Your task to perform on an android device: toggle translation in the chrome app Image 0: 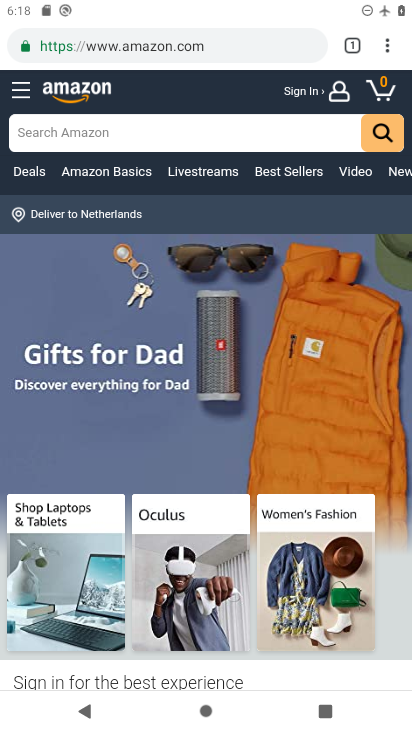
Step 0: press home button
Your task to perform on an android device: toggle translation in the chrome app Image 1: 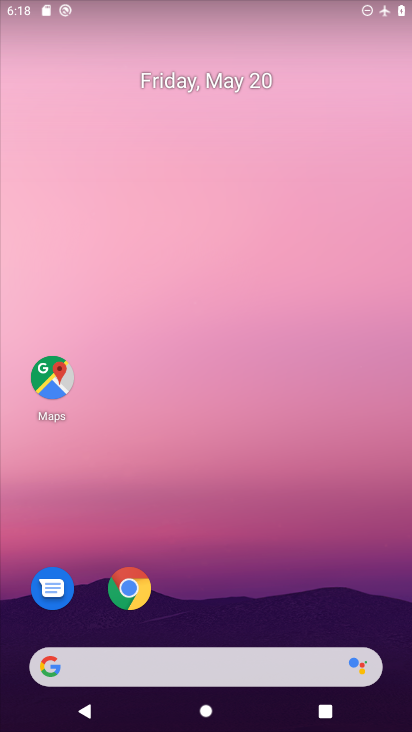
Step 1: drag from (226, 580) to (221, 171)
Your task to perform on an android device: toggle translation in the chrome app Image 2: 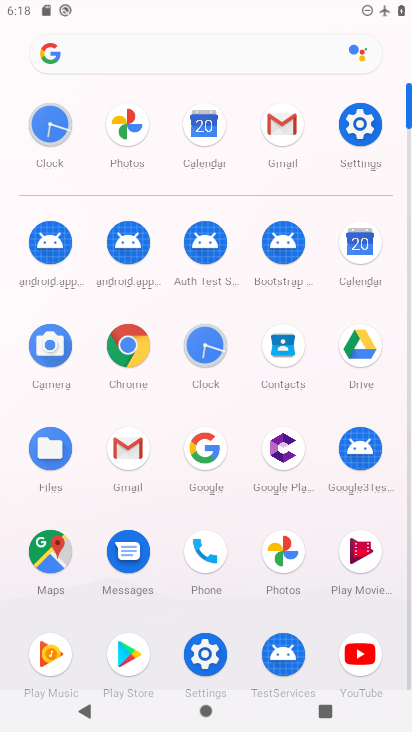
Step 2: click (123, 375)
Your task to perform on an android device: toggle translation in the chrome app Image 3: 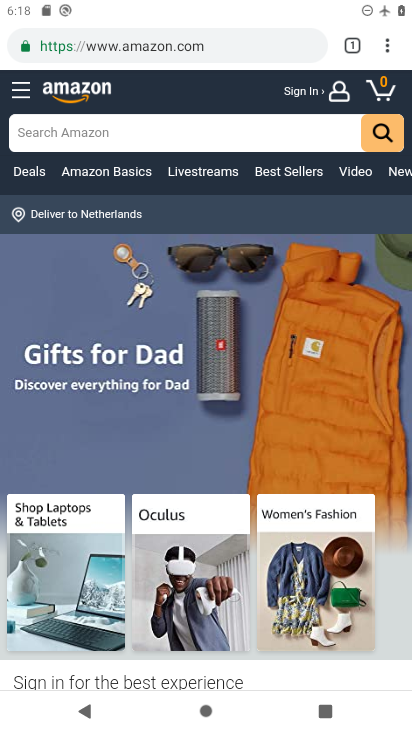
Step 3: click (386, 53)
Your task to perform on an android device: toggle translation in the chrome app Image 4: 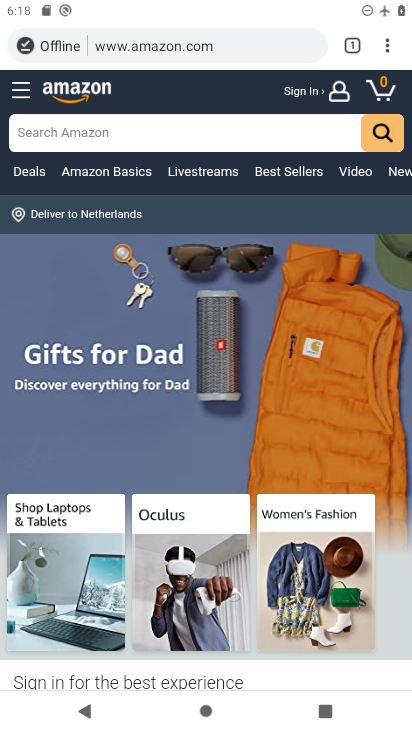
Step 4: click (386, 53)
Your task to perform on an android device: toggle translation in the chrome app Image 5: 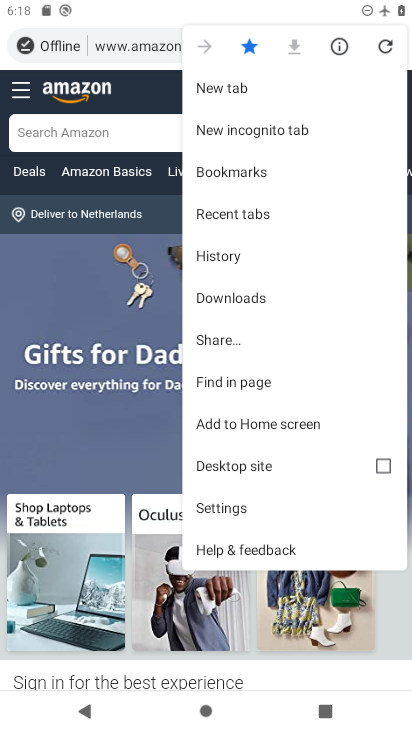
Step 5: click (240, 499)
Your task to perform on an android device: toggle translation in the chrome app Image 6: 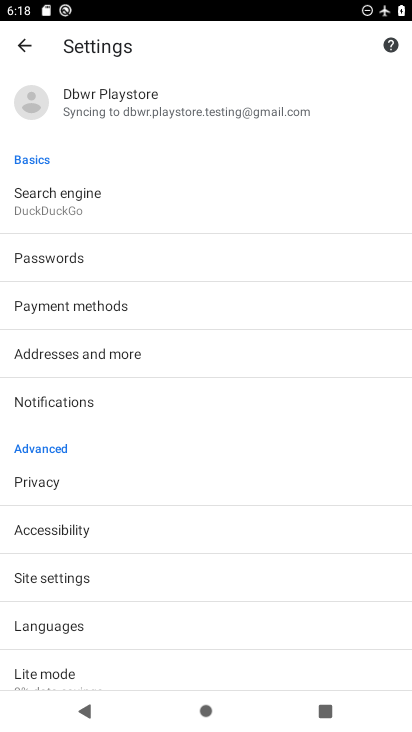
Step 6: drag from (126, 510) to (119, 388)
Your task to perform on an android device: toggle translation in the chrome app Image 7: 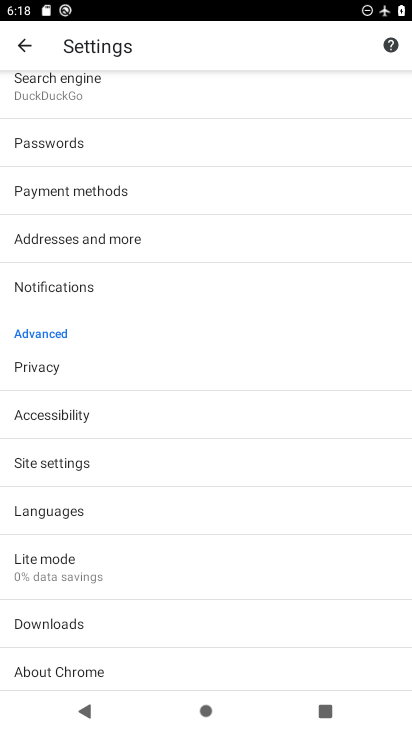
Step 7: click (61, 516)
Your task to perform on an android device: toggle translation in the chrome app Image 8: 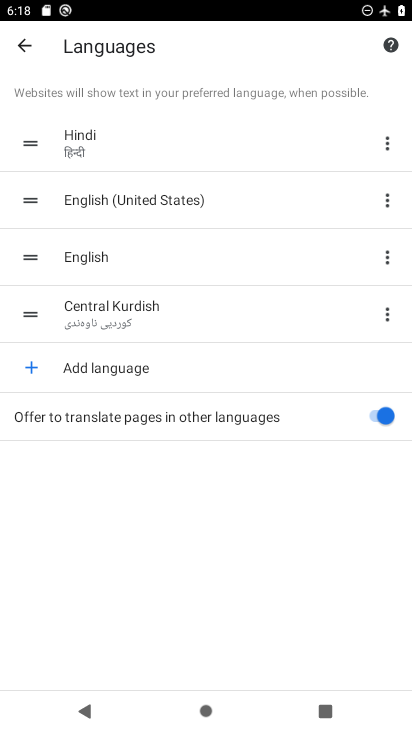
Step 8: click (359, 416)
Your task to perform on an android device: toggle translation in the chrome app Image 9: 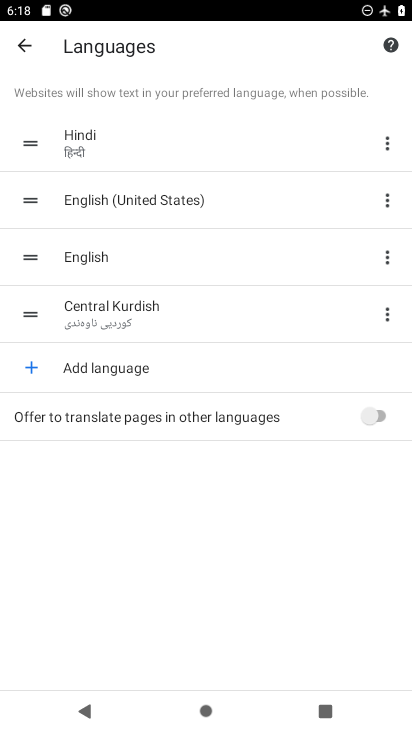
Step 9: task complete